Your task to perform on an android device: Set the phone to "Do not disturb". Image 0: 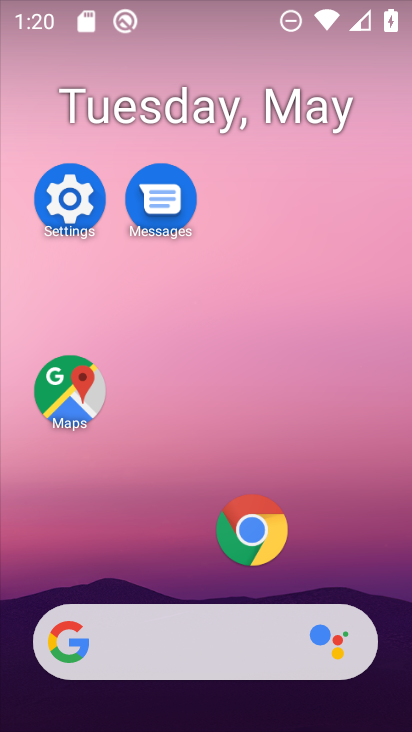
Step 0: drag from (138, 545) to (302, 218)
Your task to perform on an android device: Set the phone to "Do not disturb". Image 1: 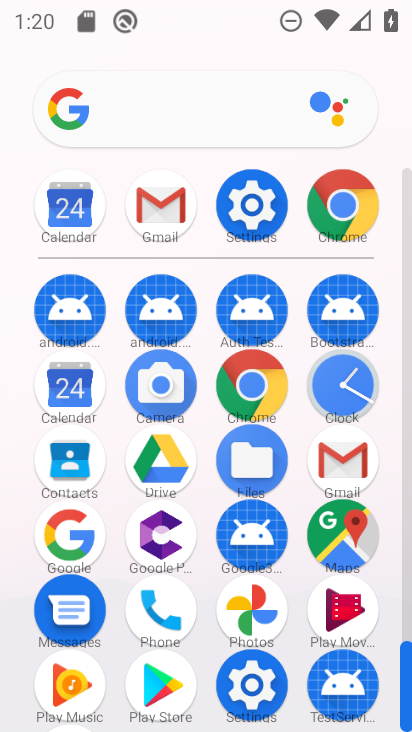
Step 1: click (261, 685)
Your task to perform on an android device: Set the phone to "Do not disturb". Image 2: 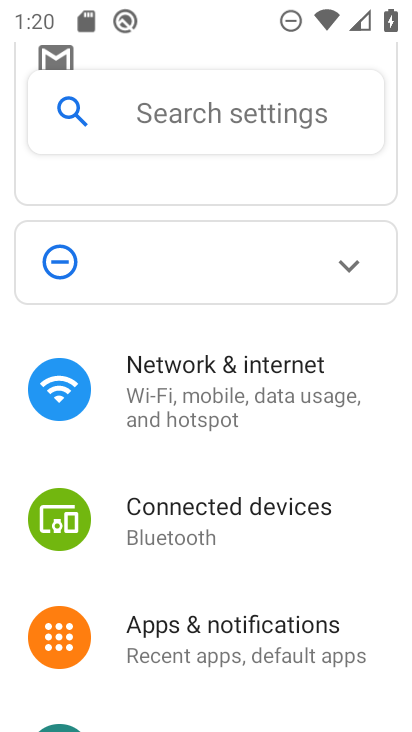
Step 2: drag from (244, 658) to (296, 327)
Your task to perform on an android device: Set the phone to "Do not disturb". Image 3: 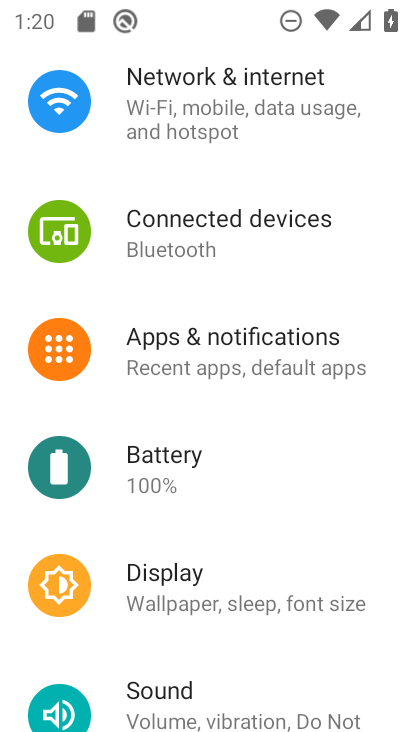
Step 3: drag from (250, 664) to (275, 441)
Your task to perform on an android device: Set the phone to "Do not disturb". Image 4: 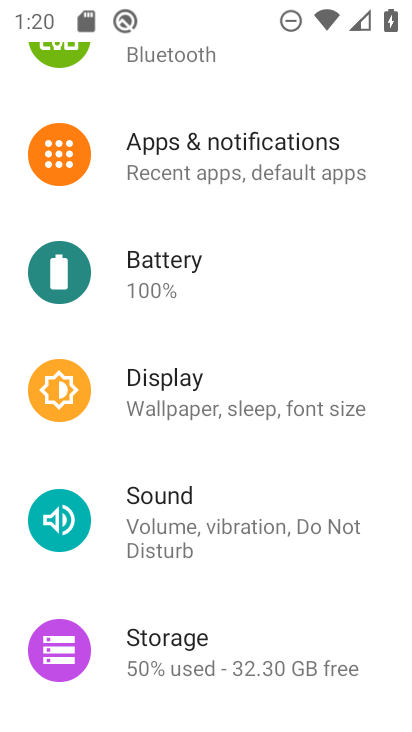
Step 4: click (287, 540)
Your task to perform on an android device: Set the phone to "Do not disturb". Image 5: 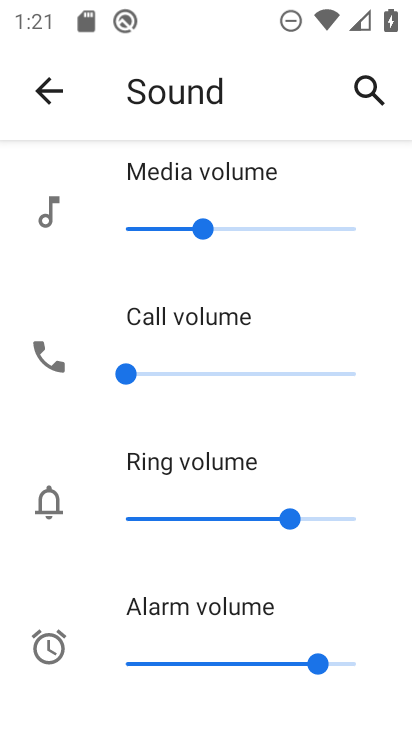
Step 5: task complete